Your task to perform on an android device: turn smart compose on in the gmail app Image 0: 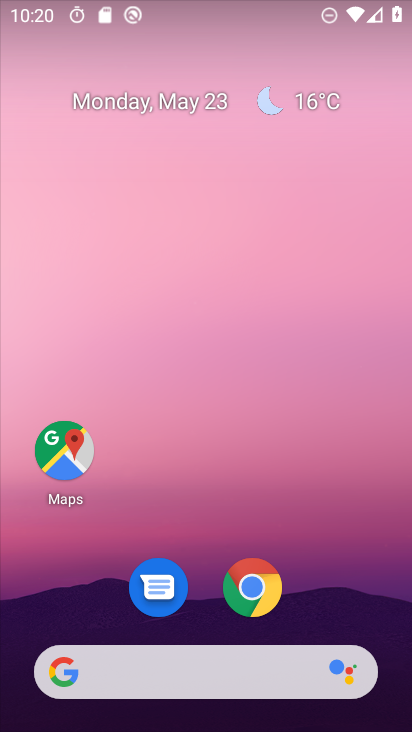
Step 0: drag from (260, 523) to (310, 108)
Your task to perform on an android device: turn smart compose on in the gmail app Image 1: 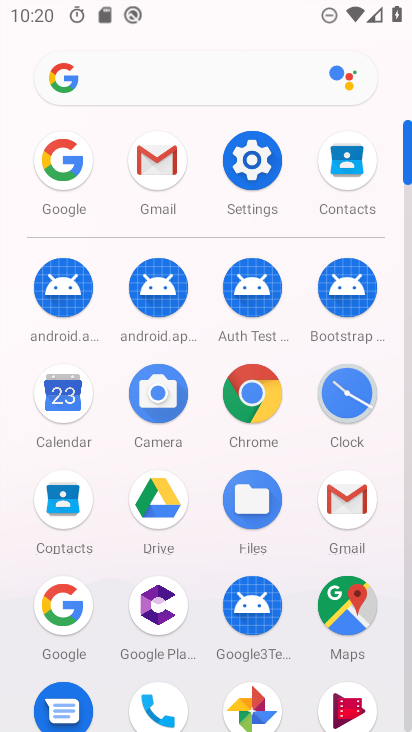
Step 1: click (165, 161)
Your task to perform on an android device: turn smart compose on in the gmail app Image 2: 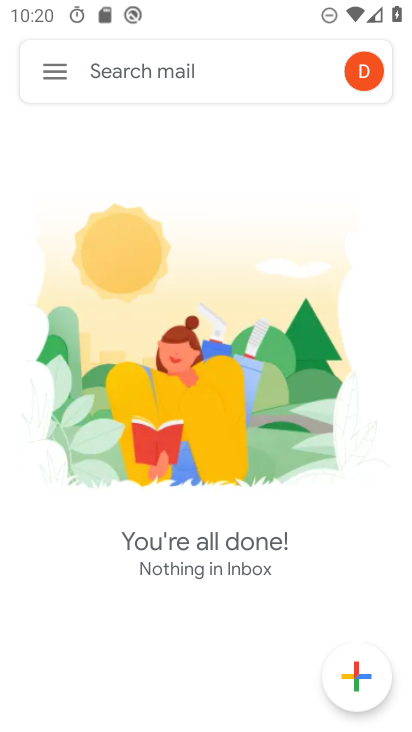
Step 2: click (59, 69)
Your task to perform on an android device: turn smart compose on in the gmail app Image 3: 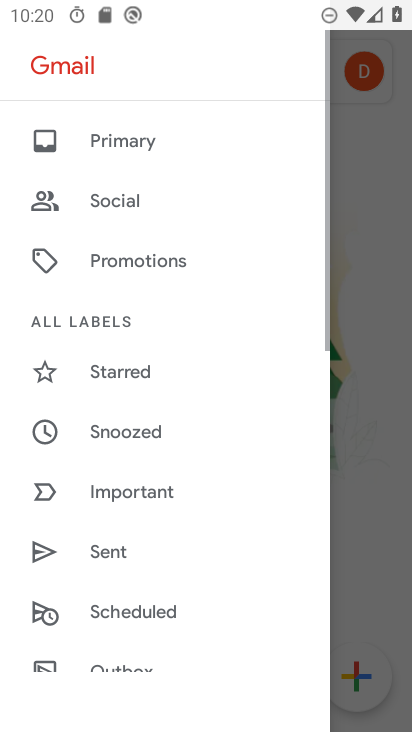
Step 3: drag from (145, 571) to (217, 112)
Your task to perform on an android device: turn smart compose on in the gmail app Image 4: 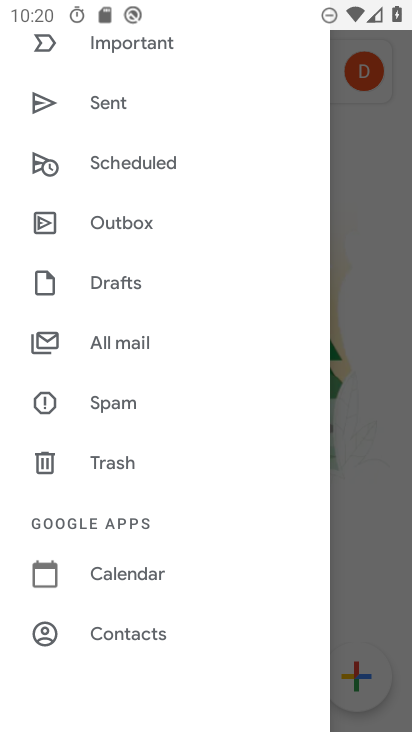
Step 4: drag from (126, 594) to (254, 94)
Your task to perform on an android device: turn smart compose on in the gmail app Image 5: 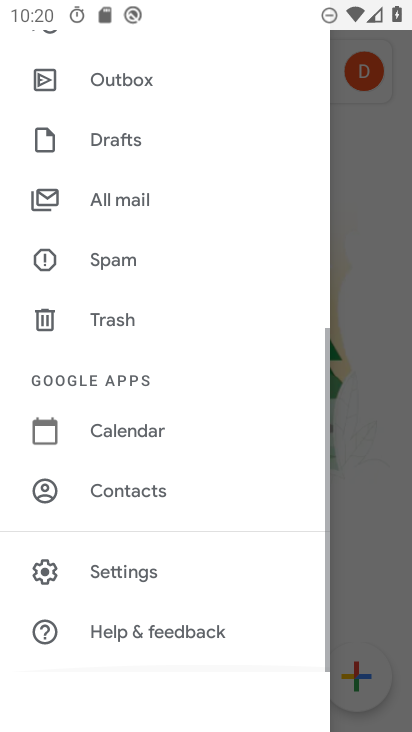
Step 5: click (109, 573)
Your task to perform on an android device: turn smart compose on in the gmail app Image 6: 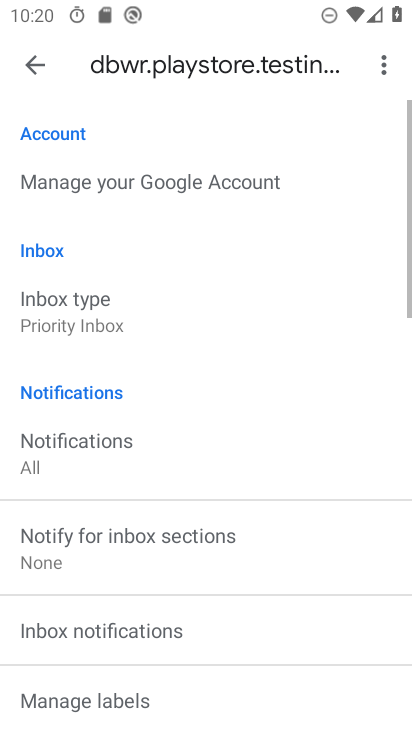
Step 6: task complete